Your task to perform on an android device: turn on data saver in the chrome app Image 0: 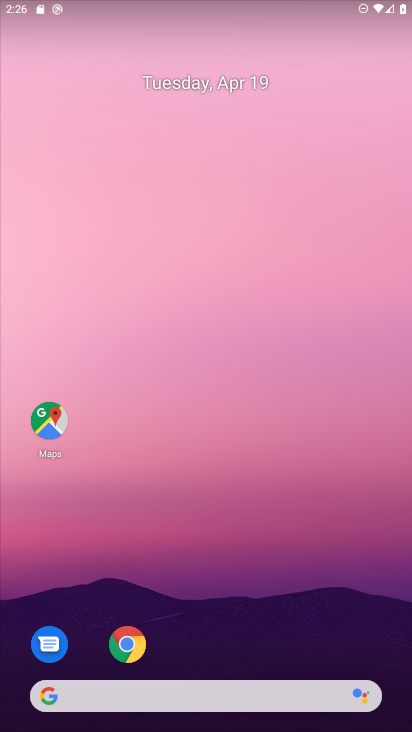
Step 0: click (129, 641)
Your task to perform on an android device: turn on data saver in the chrome app Image 1: 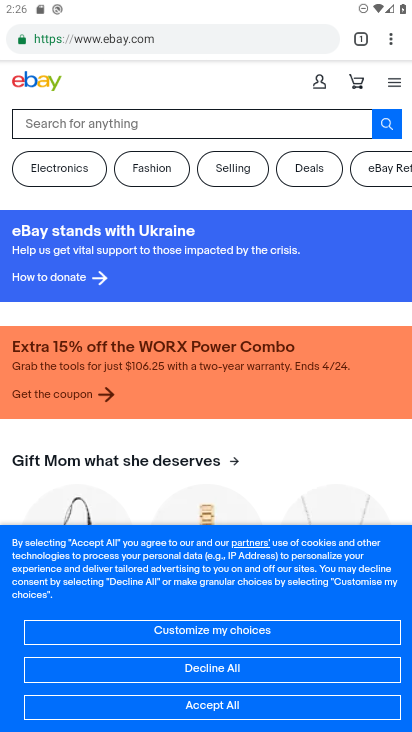
Step 1: click (385, 35)
Your task to perform on an android device: turn on data saver in the chrome app Image 2: 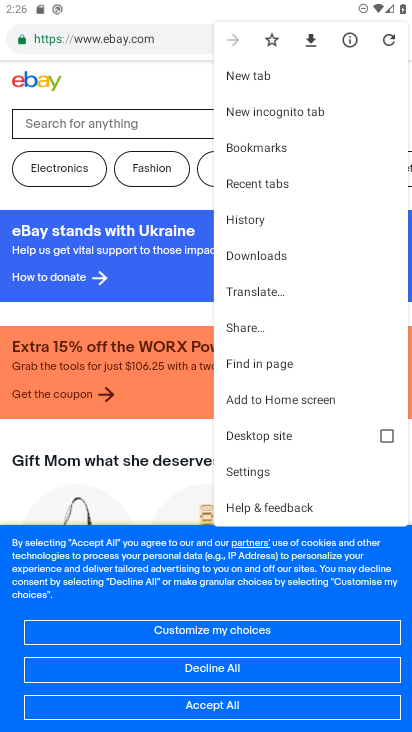
Step 2: click (251, 469)
Your task to perform on an android device: turn on data saver in the chrome app Image 3: 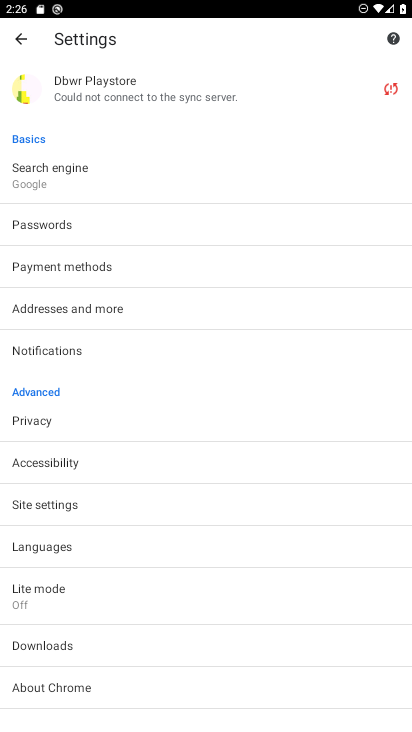
Step 3: click (52, 596)
Your task to perform on an android device: turn on data saver in the chrome app Image 4: 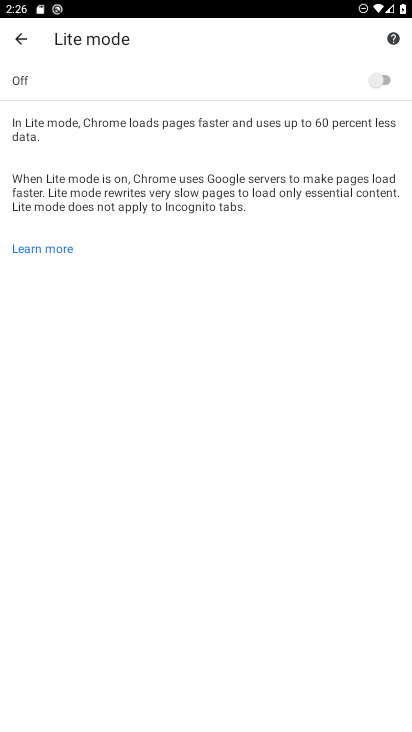
Step 4: click (380, 80)
Your task to perform on an android device: turn on data saver in the chrome app Image 5: 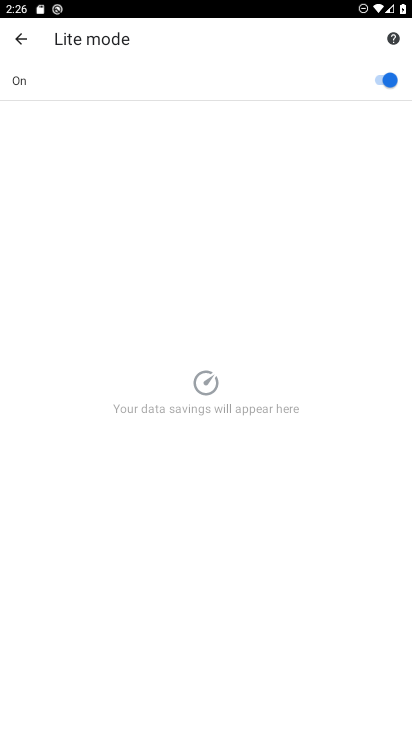
Step 5: task complete